Your task to perform on an android device: Go to CNN.com Image 0: 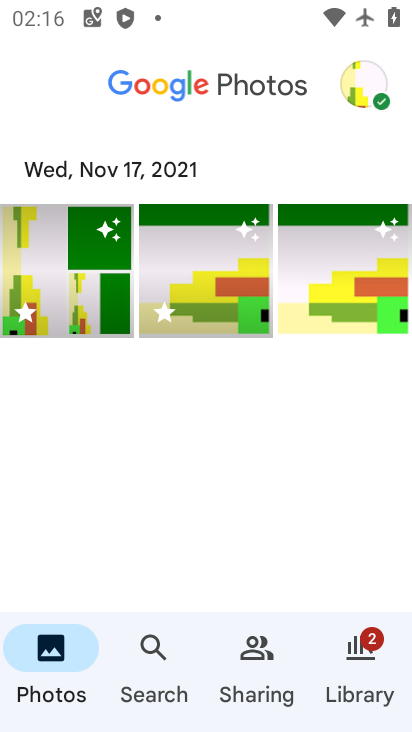
Step 0: press home button
Your task to perform on an android device: Go to CNN.com Image 1: 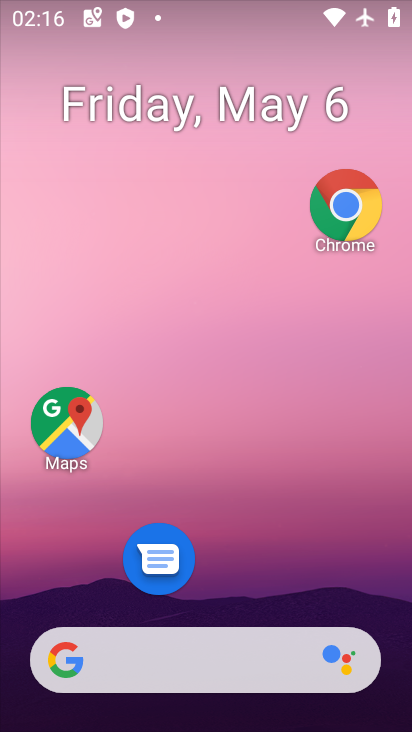
Step 1: drag from (176, 652) to (288, 213)
Your task to perform on an android device: Go to CNN.com Image 2: 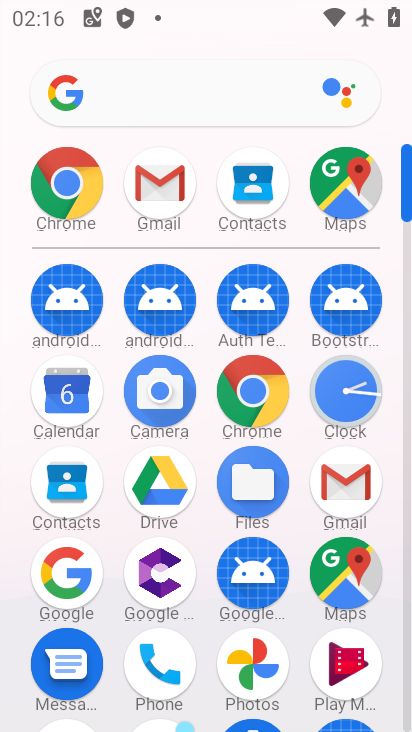
Step 2: click (76, 192)
Your task to perform on an android device: Go to CNN.com Image 3: 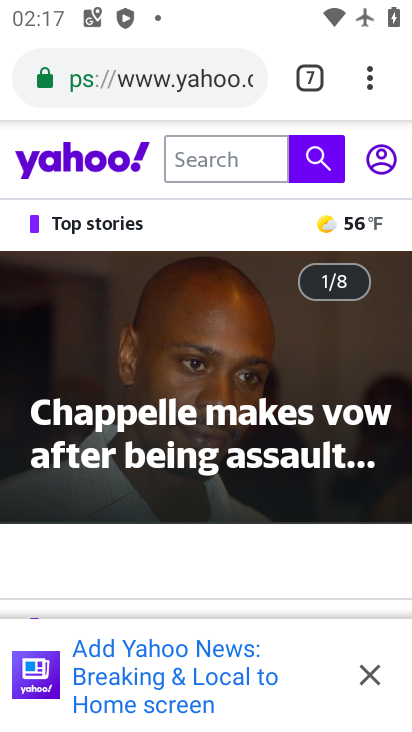
Step 3: drag from (365, 79) to (167, 161)
Your task to perform on an android device: Go to CNN.com Image 4: 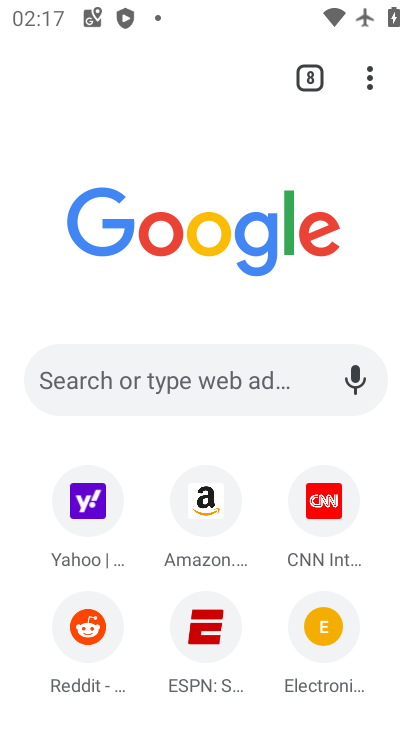
Step 4: click (333, 502)
Your task to perform on an android device: Go to CNN.com Image 5: 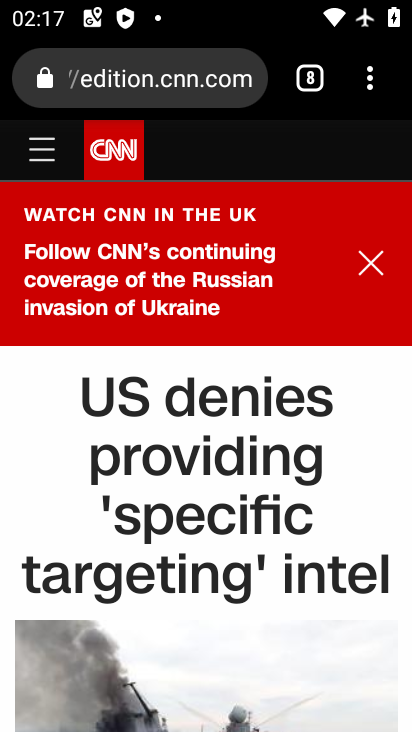
Step 5: task complete